Your task to perform on an android device: Open wifi settings Image 0: 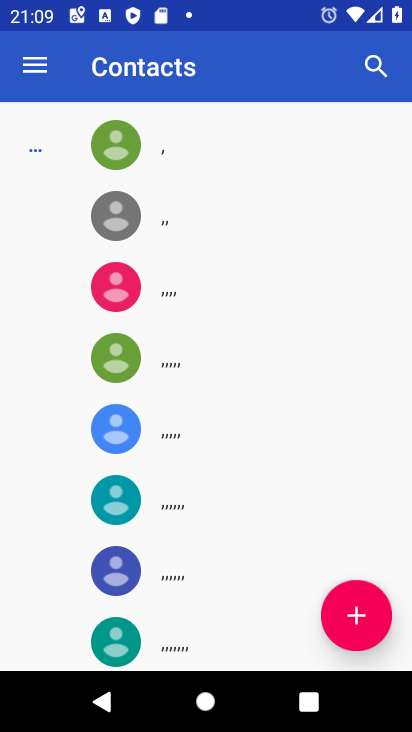
Step 0: press home button
Your task to perform on an android device: Open wifi settings Image 1: 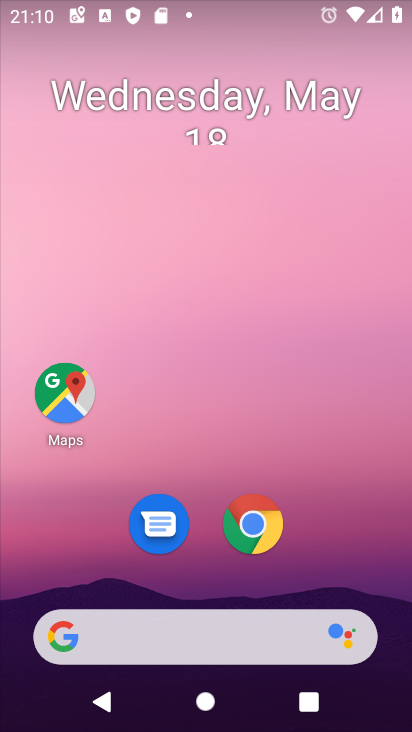
Step 1: drag from (263, 451) to (297, 75)
Your task to perform on an android device: Open wifi settings Image 2: 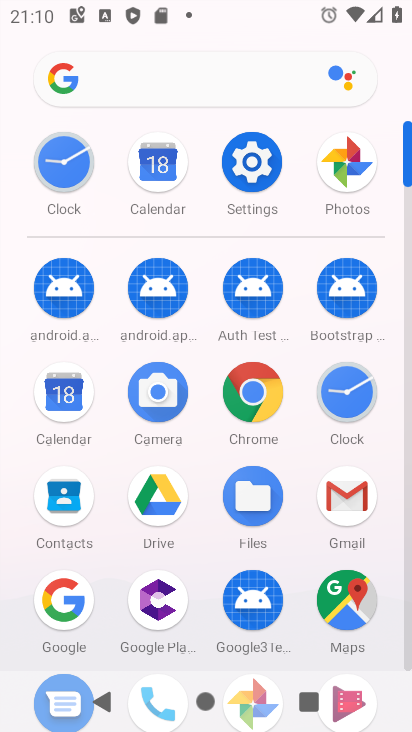
Step 2: click (250, 151)
Your task to perform on an android device: Open wifi settings Image 3: 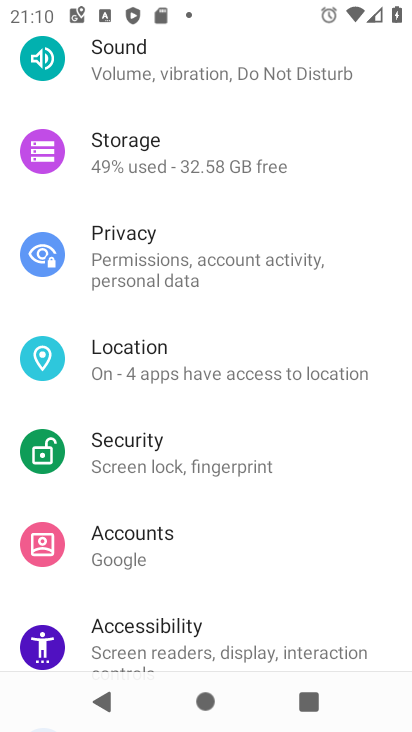
Step 3: drag from (225, 141) to (261, 410)
Your task to perform on an android device: Open wifi settings Image 4: 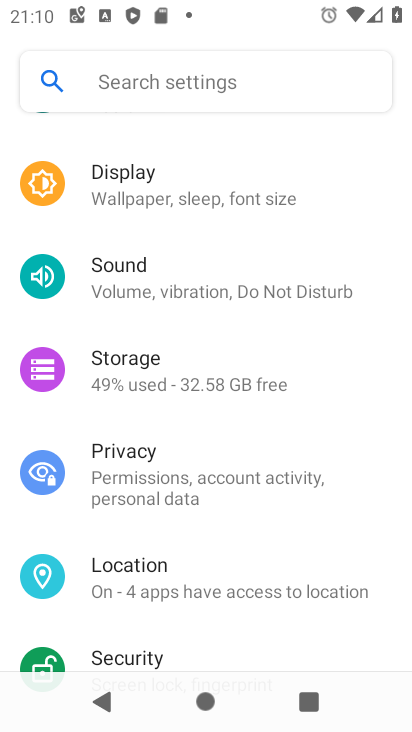
Step 4: drag from (241, 280) to (203, 660)
Your task to perform on an android device: Open wifi settings Image 5: 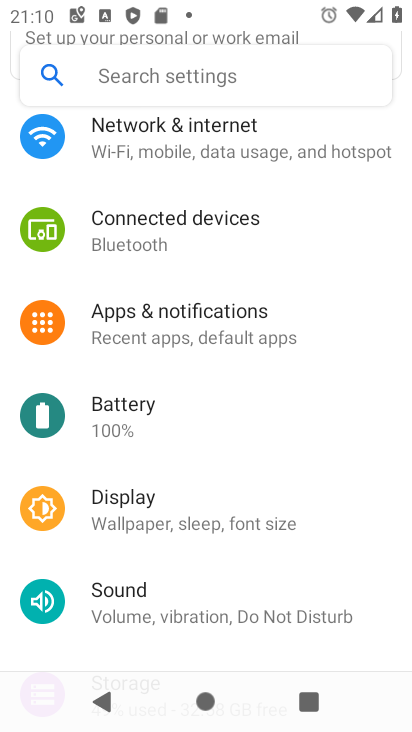
Step 5: click (249, 142)
Your task to perform on an android device: Open wifi settings Image 6: 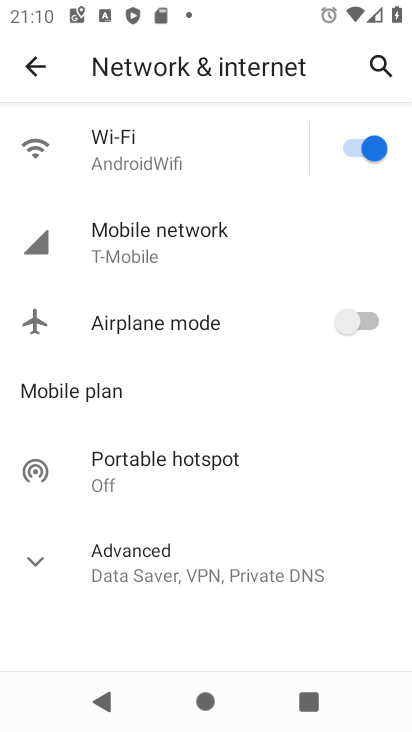
Step 6: click (169, 132)
Your task to perform on an android device: Open wifi settings Image 7: 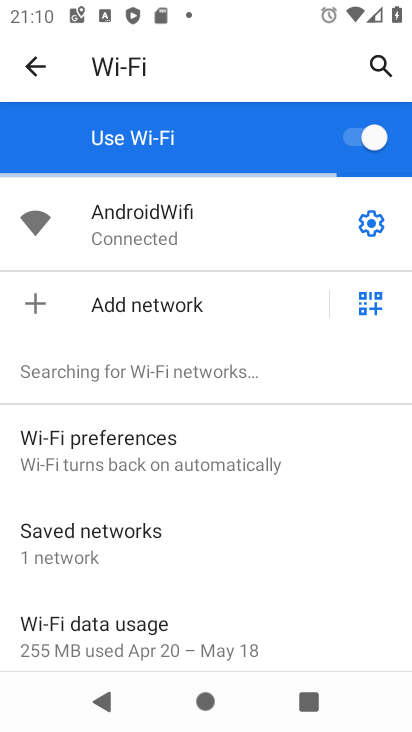
Step 7: task complete